Your task to perform on an android device: Find coffee shops on Maps Image 0: 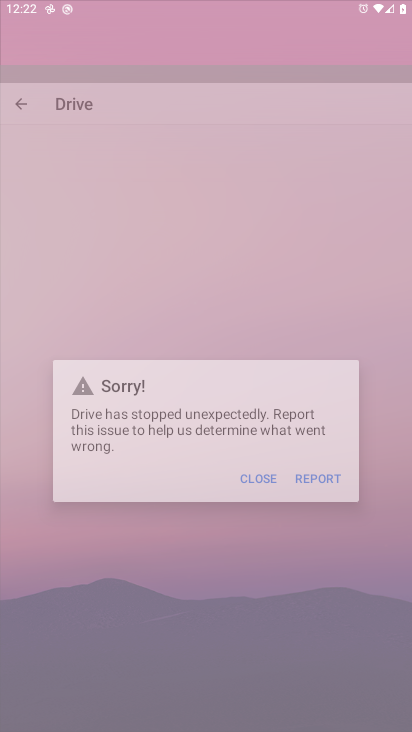
Step 0: press home button
Your task to perform on an android device: Find coffee shops on Maps Image 1: 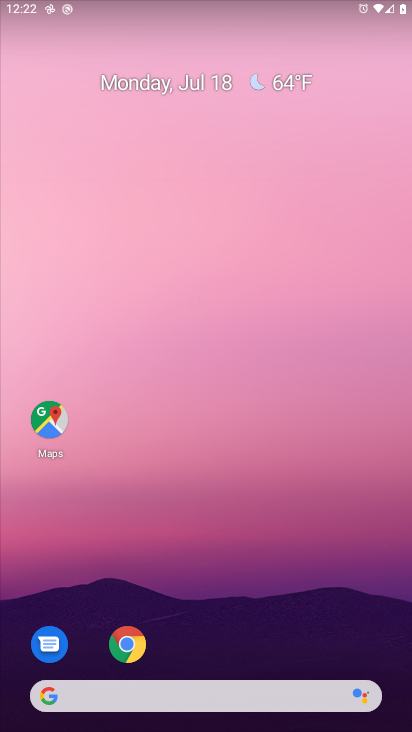
Step 1: click (60, 408)
Your task to perform on an android device: Find coffee shops on Maps Image 2: 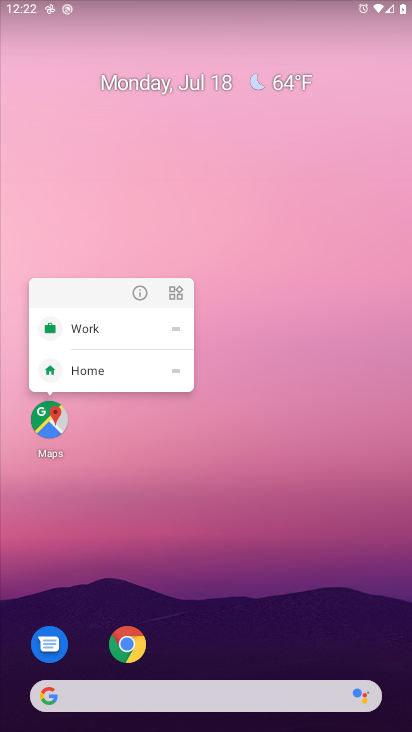
Step 2: click (60, 408)
Your task to perform on an android device: Find coffee shops on Maps Image 3: 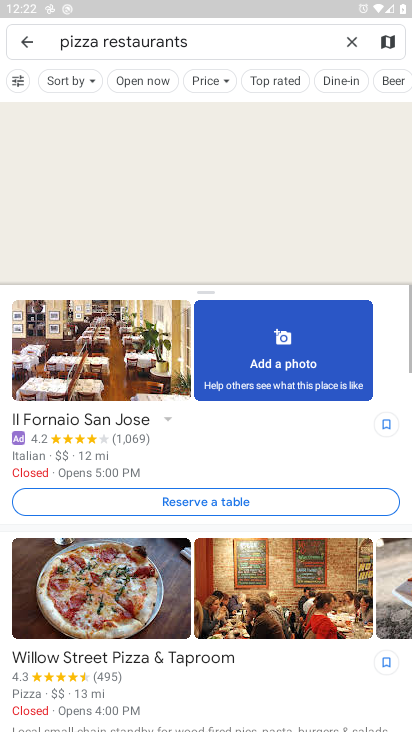
Step 3: click (348, 42)
Your task to perform on an android device: Find coffee shops on Maps Image 4: 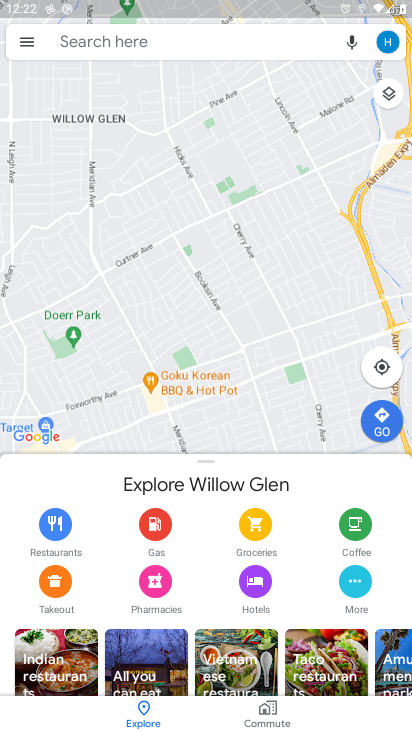
Step 4: type " coffee shops "
Your task to perform on an android device: Find coffee shops on Maps Image 5: 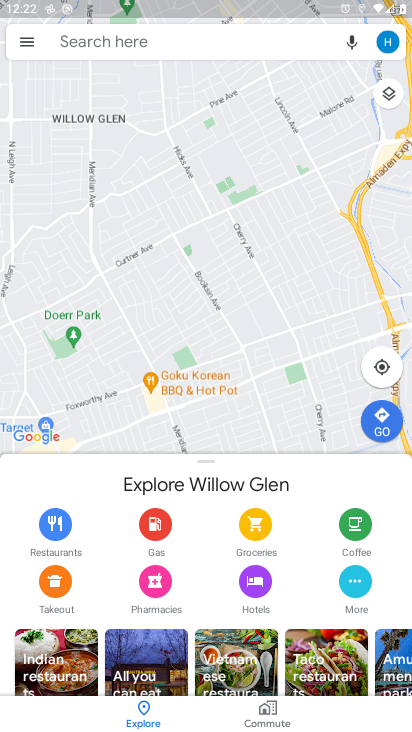
Step 5: click (90, 40)
Your task to perform on an android device: Find coffee shops on Maps Image 6: 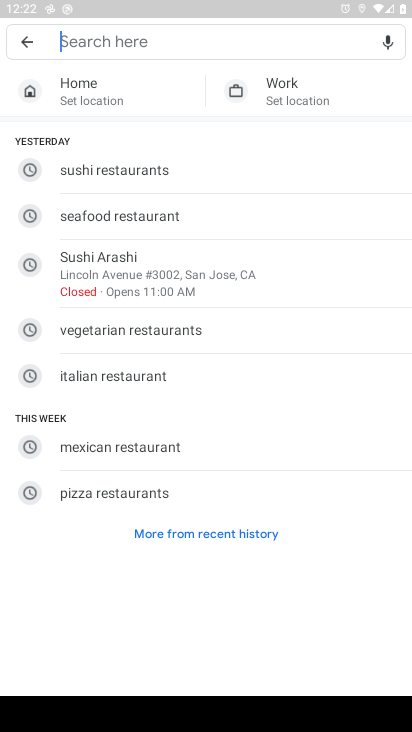
Step 6: click (134, 42)
Your task to perform on an android device: Find coffee shops on Maps Image 7: 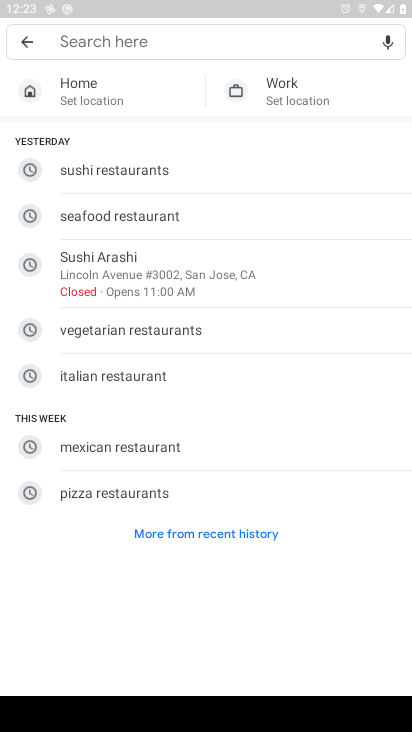
Step 7: type " coffee shops "
Your task to perform on an android device: Find coffee shops on Maps Image 8: 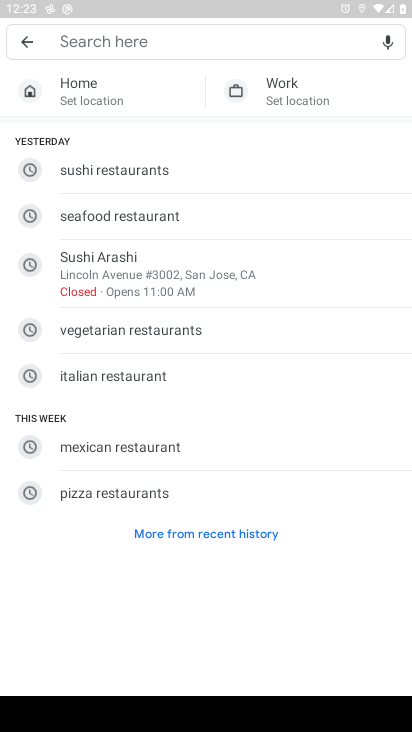
Step 8: click (95, 40)
Your task to perform on an android device: Find coffee shops on Maps Image 9: 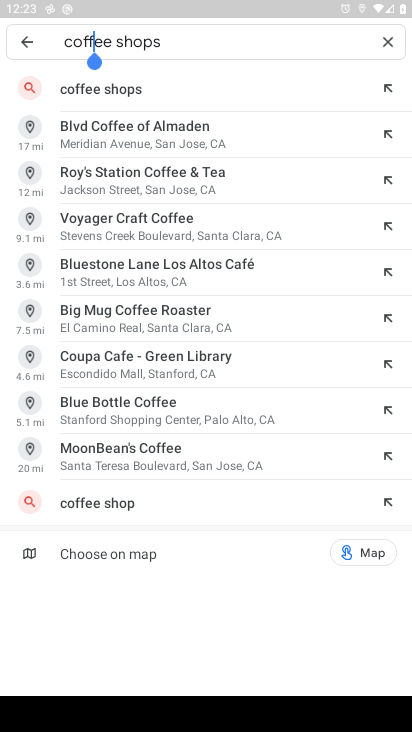
Step 9: press enter
Your task to perform on an android device: Find coffee shops on Maps Image 10: 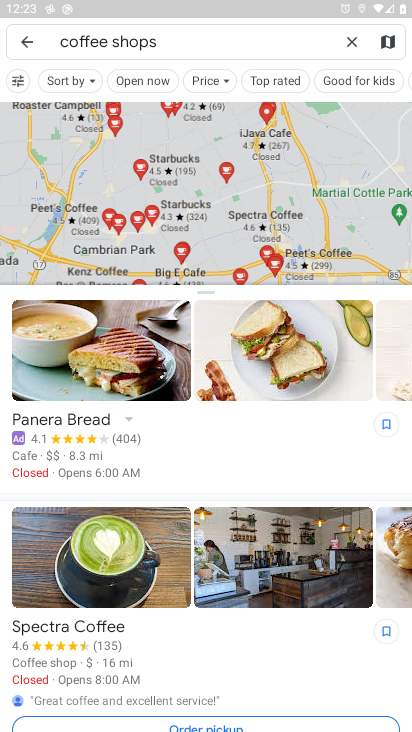
Step 10: task complete